Your task to perform on an android device: clear all cookies in the chrome app Image 0: 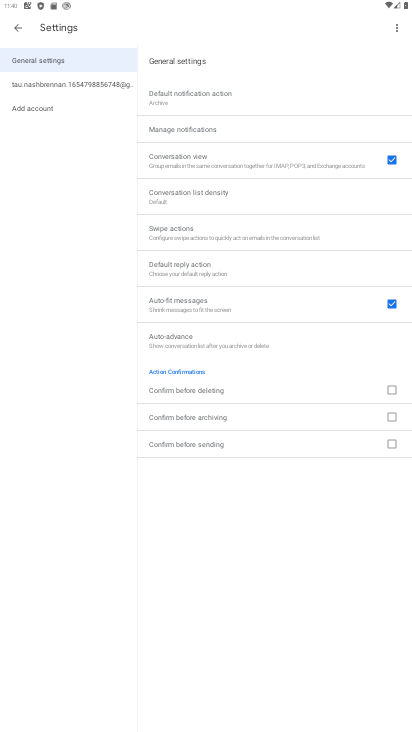
Step 0: press home button
Your task to perform on an android device: clear all cookies in the chrome app Image 1: 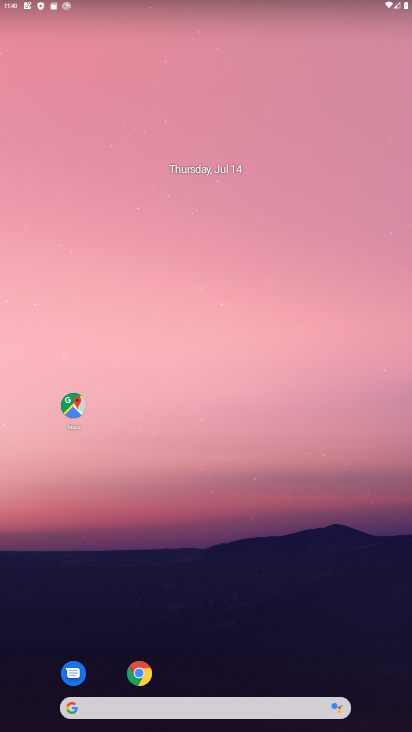
Step 1: click (133, 676)
Your task to perform on an android device: clear all cookies in the chrome app Image 2: 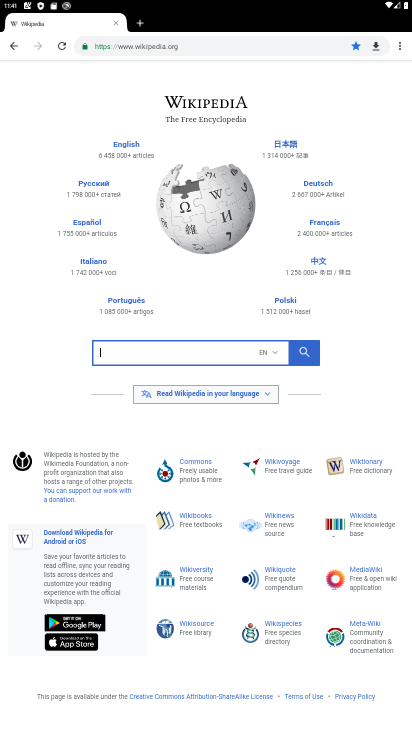
Step 2: click (402, 43)
Your task to perform on an android device: clear all cookies in the chrome app Image 3: 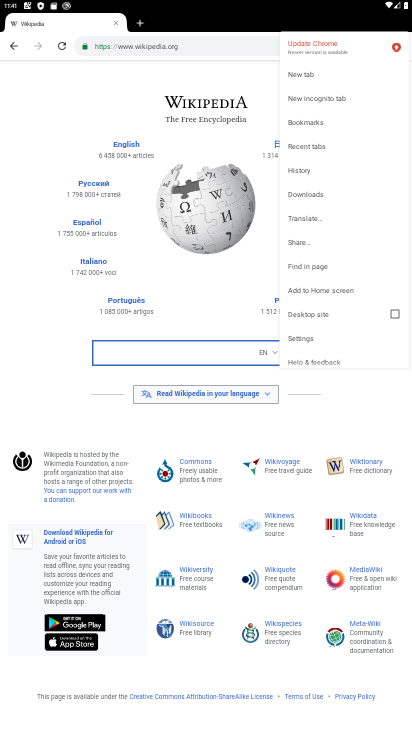
Step 3: click (298, 169)
Your task to perform on an android device: clear all cookies in the chrome app Image 4: 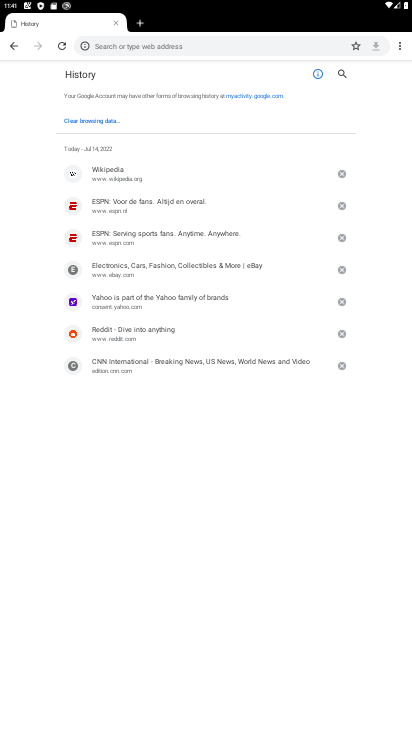
Step 4: click (104, 118)
Your task to perform on an android device: clear all cookies in the chrome app Image 5: 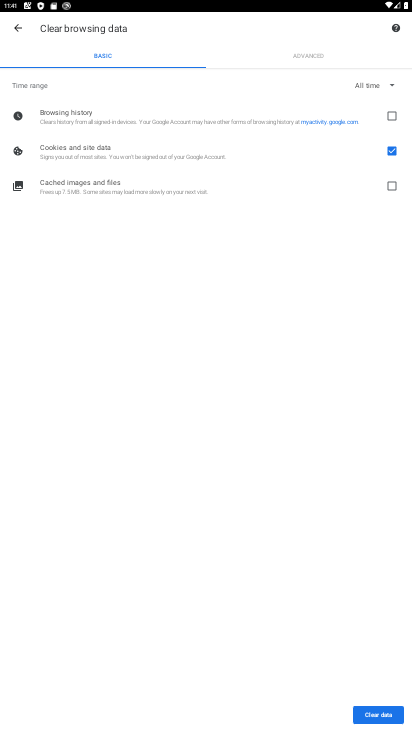
Step 5: click (394, 714)
Your task to perform on an android device: clear all cookies in the chrome app Image 6: 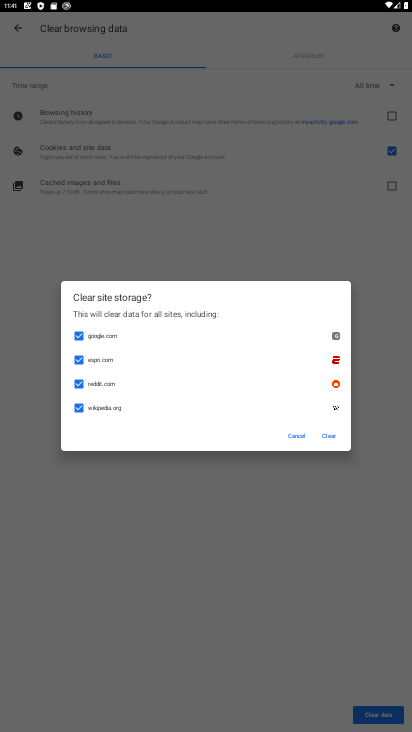
Step 6: click (327, 434)
Your task to perform on an android device: clear all cookies in the chrome app Image 7: 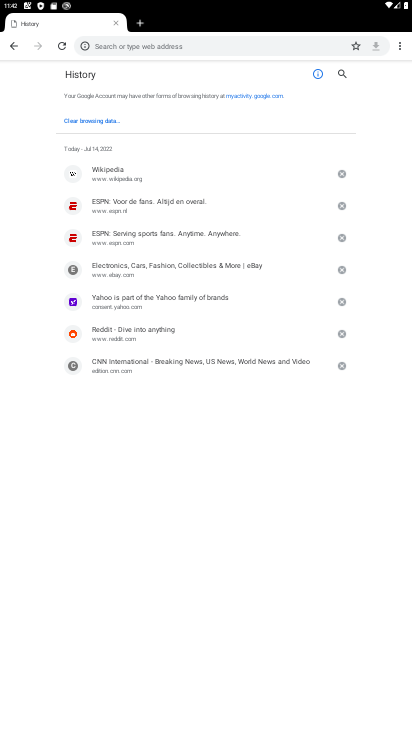
Step 7: task complete